Your task to perform on an android device: toggle translation in the chrome app Image 0: 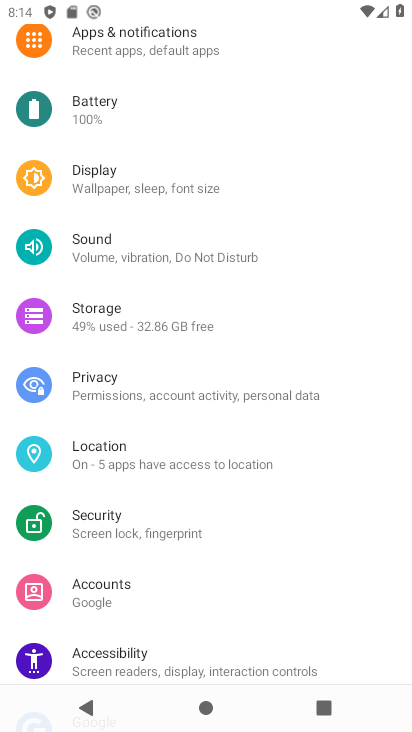
Step 0: press home button
Your task to perform on an android device: toggle translation in the chrome app Image 1: 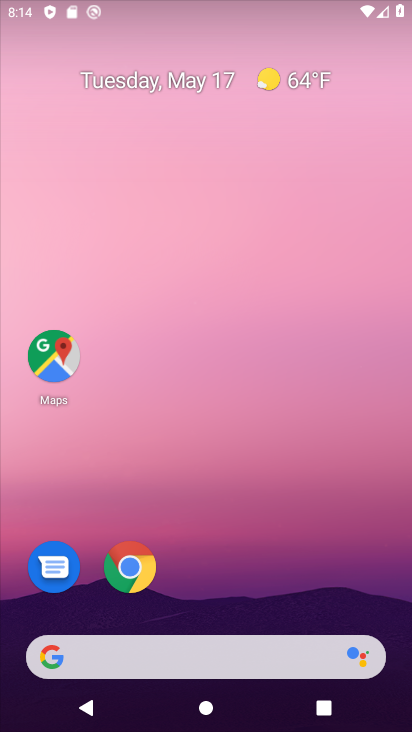
Step 1: drag from (374, 591) to (121, 31)
Your task to perform on an android device: toggle translation in the chrome app Image 2: 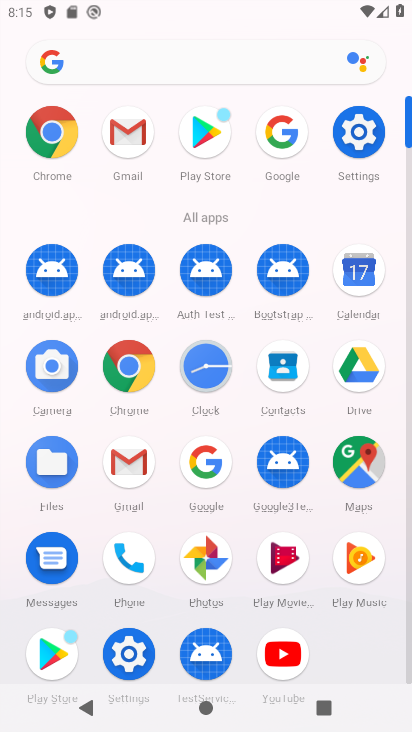
Step 2: click (137, 372)
Your task to perform on an android device: toggle translation in the chrome app Image 3: 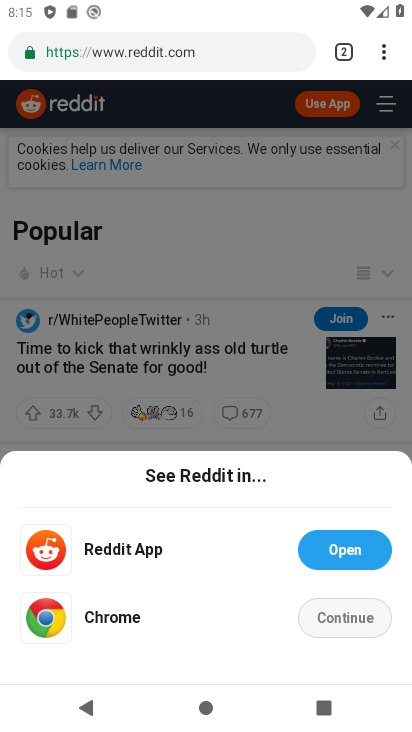
Step 3: press back button
Your task to perform on an android device: toggle translation in the chrome app Image 4: 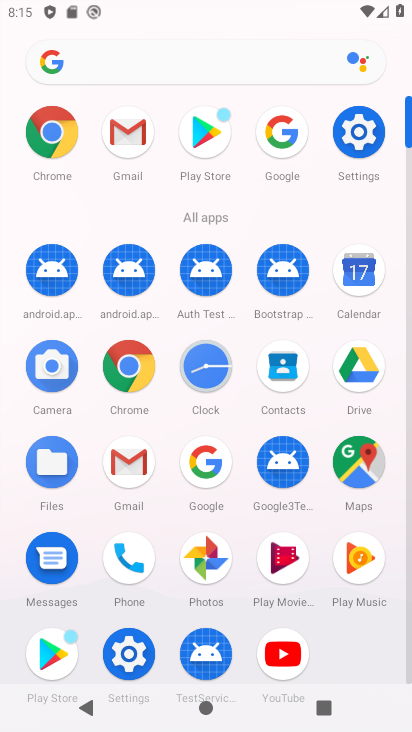
Step 4: click (139, 390)
Your task to perform on an android device: toggle translation in the chrome app Image 5: 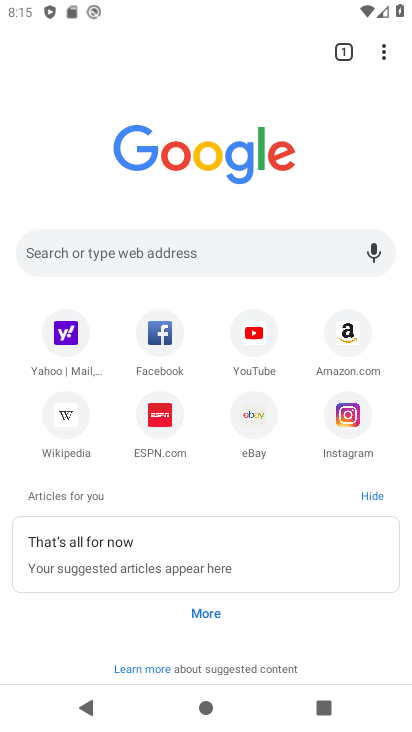
Step 5: click (381, 43)
Your task to perform on an android device: toggle translation in the chrome app Image 6: 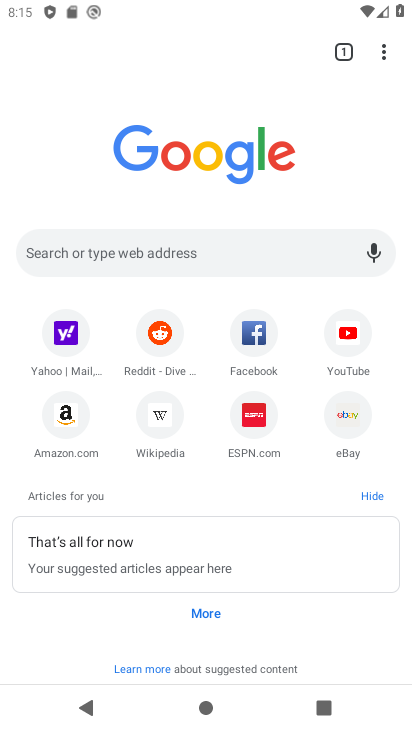
Step 6: click (381, 43)
Your task to perform on an android device: toggle translation in the chrome app Image 7: 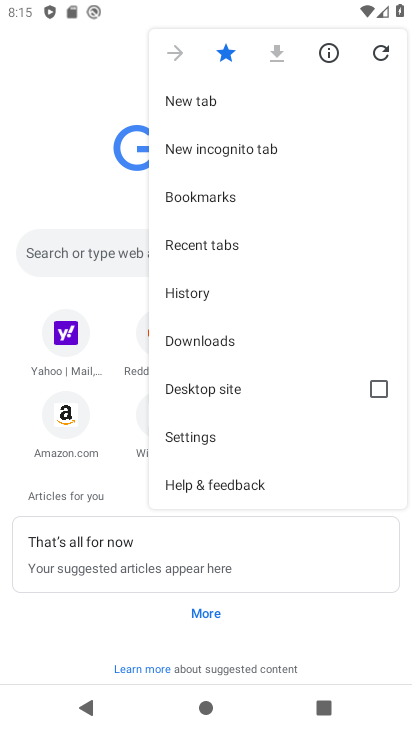
Step 7: click (239, 439)
Your task to perform on an android device: toggle translation in the chrome app Image 8: 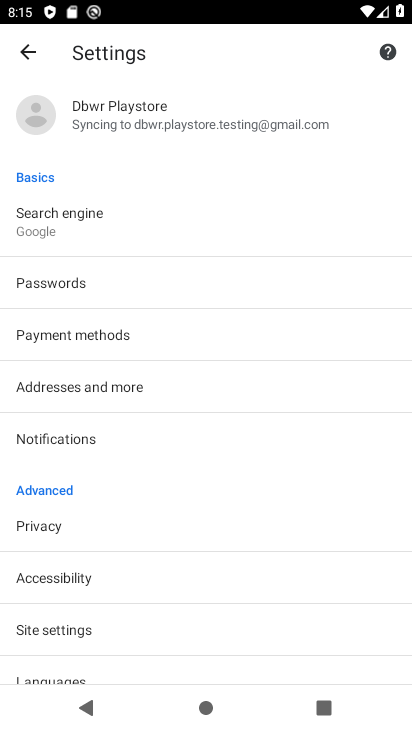
Step 8: drag from (99, 636) to (105, 367)
Your task to perform on an android device: toggle translation in the chrome app Image 9: 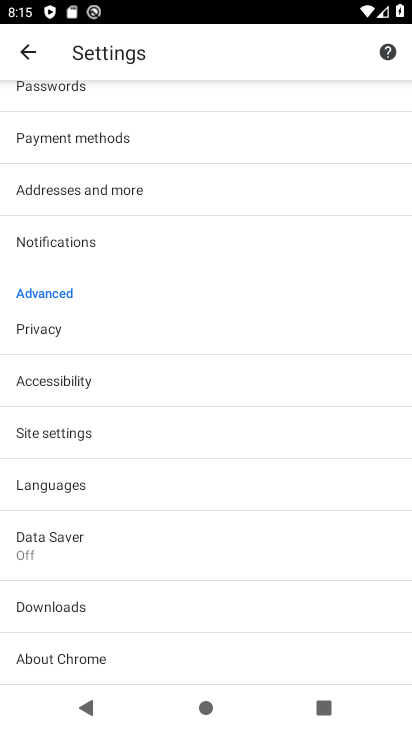
Step 9: click (75, 484)
Your task to perform on an android device: toggle translation in the chrome app Image 10: 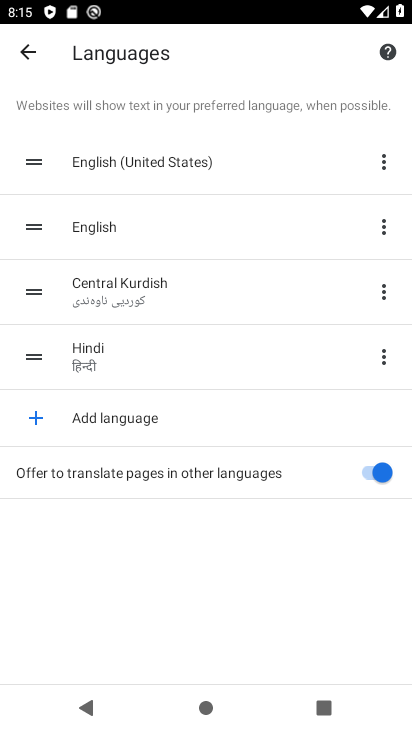
Step 10: click (371, 466)
Your task to perform on an android device: toggle translation in the chrome app Image 11: 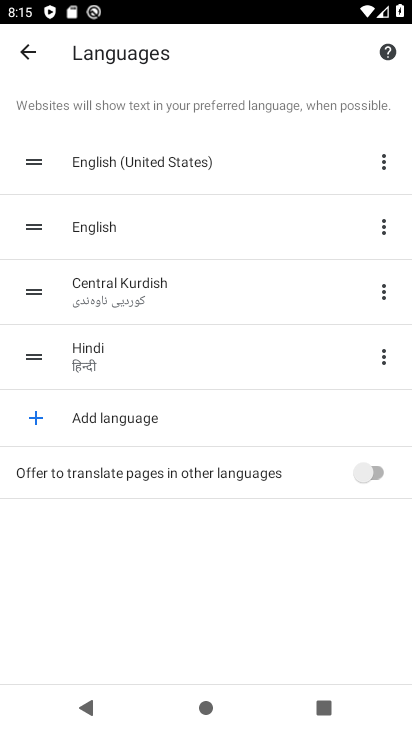
Step 11: task complete